Your task to perform on an android device: Open Chrome and go to the settings page Image 0: 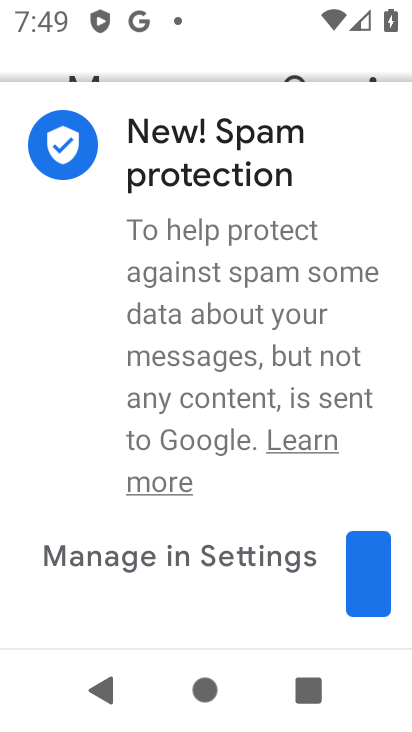
Step 0: press home button
Your task to perform on an android device: Open Chrome and go to the settings page Image 1: 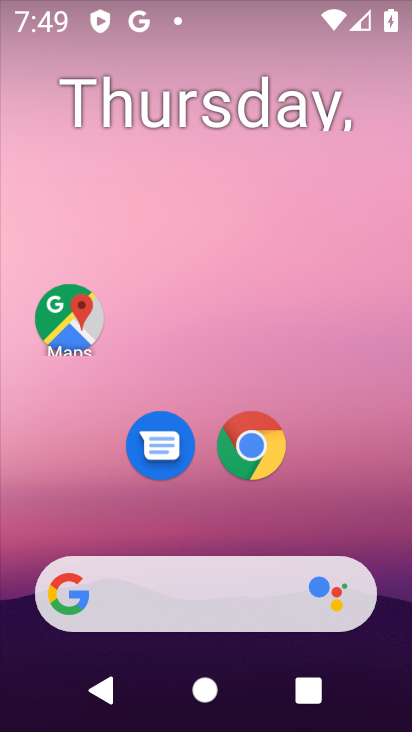
Step 1: drag from (285, 519) to (315, 122)
Your task to perform on an android device: Open Chrome and go to the settings page Image 2: 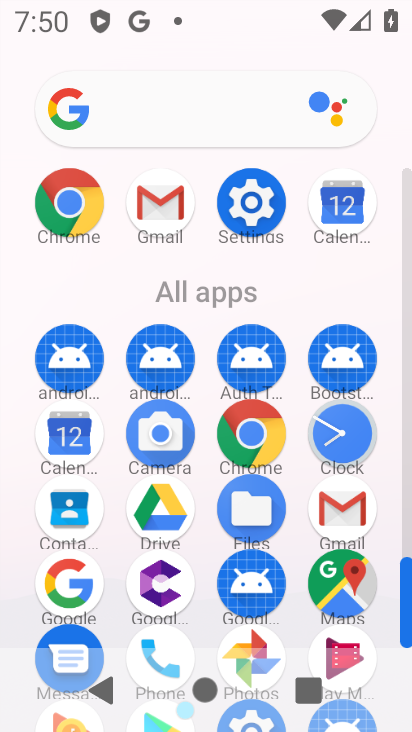
Step 2: click (256, 437)
Your task to perform on an android device: Open Chrome and go to the settings page Image 3: 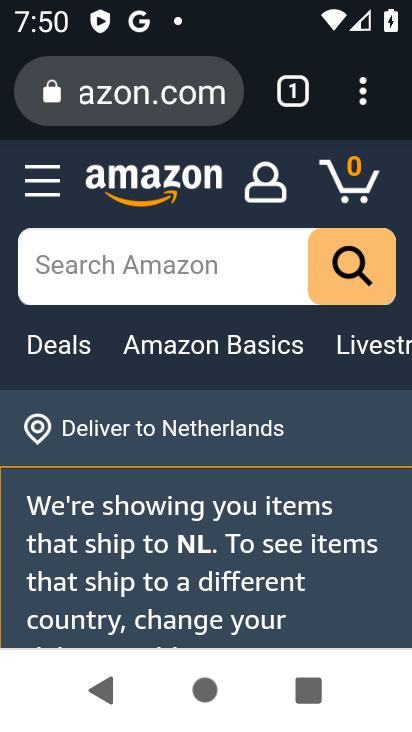
Step 3: task complete